Your task to perform on an android device: set the timer Image 0: 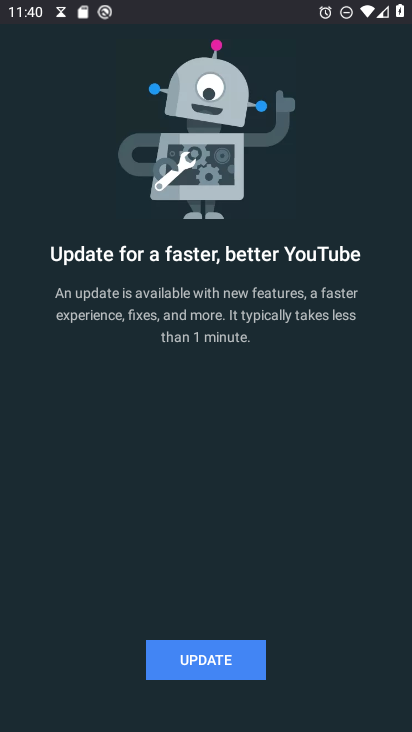
Step 0: press home button
Your task to perform on an android device: set the timer Image 1: 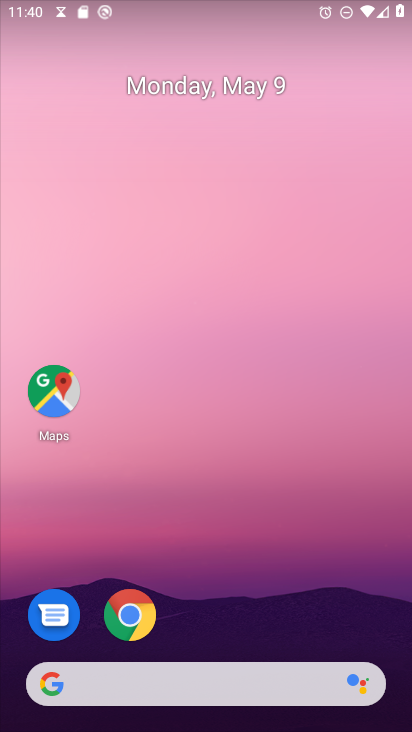
Step 1: drag from (216, 719) to (191, 187)
Your task to perform on an android device: set the timer Image 2: 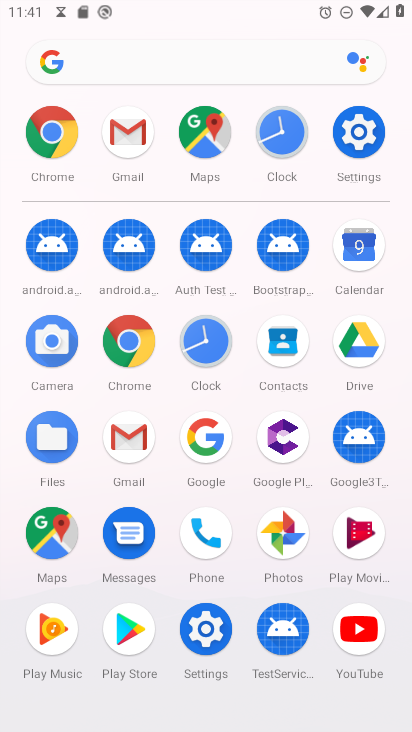
Step 2: click (202, 336)
Your task to perform on an android device: set the timer Image 3: 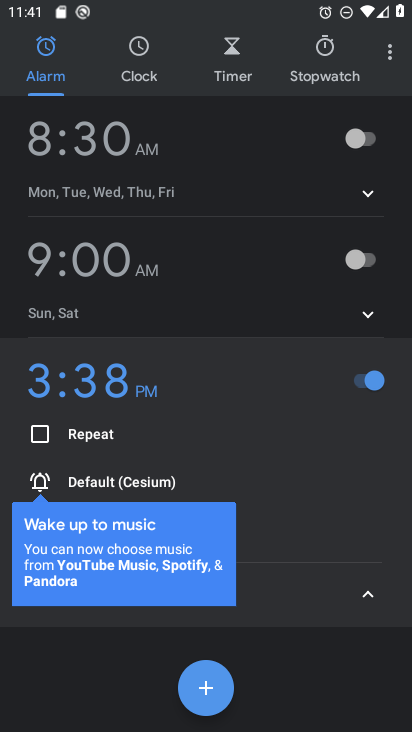
Step 3: click (234, 59)
Your task to perform on an android device: set the timer Image 4: 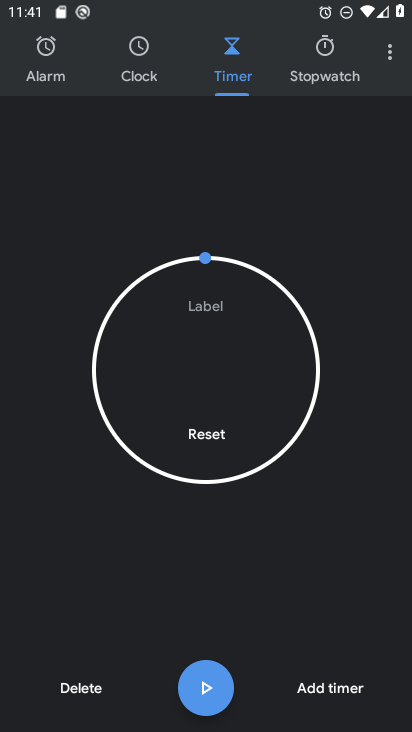
Step 4: click (331, 679)
Your task to perform on an android device: set the timer Image 5: 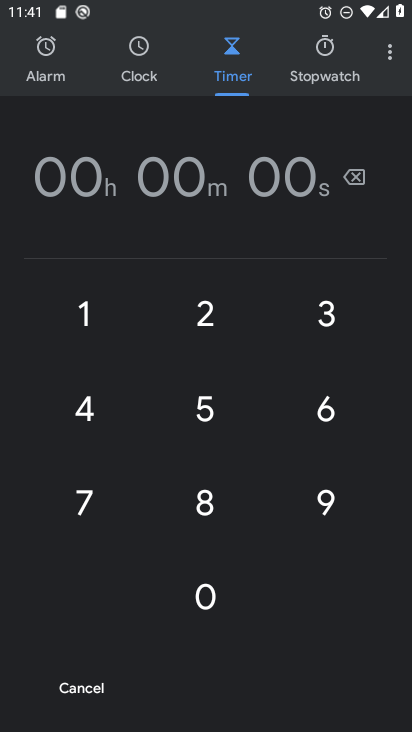
Step 5: click (203, 407)
Your task to perform on an android device: set the timer Image 6: 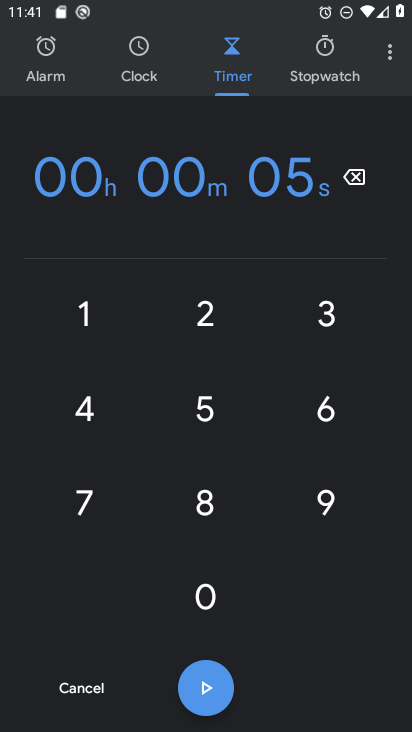
Step 6: click (205, 509)
Your task to perform on an android device: set the timer Image 7: 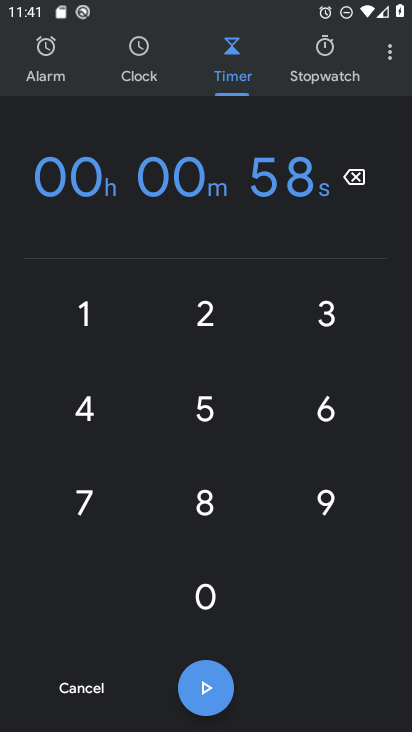
Step 7: click (87, 409)
Your task to perform on an android device: set the timer Image 8: 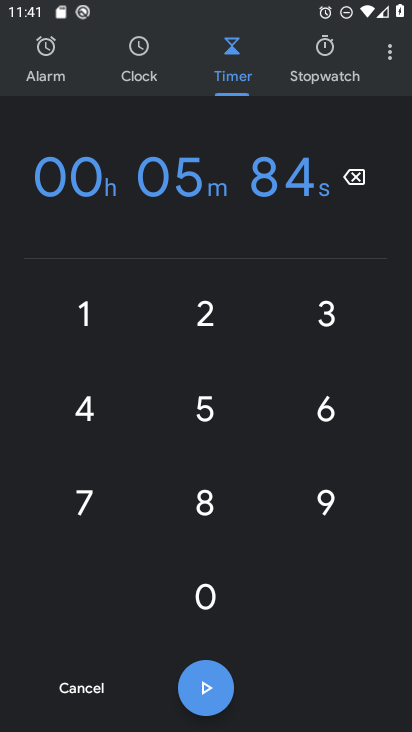
Step 8: click (79, 307)
Your task to perform on an android device: set the timer Image 9: 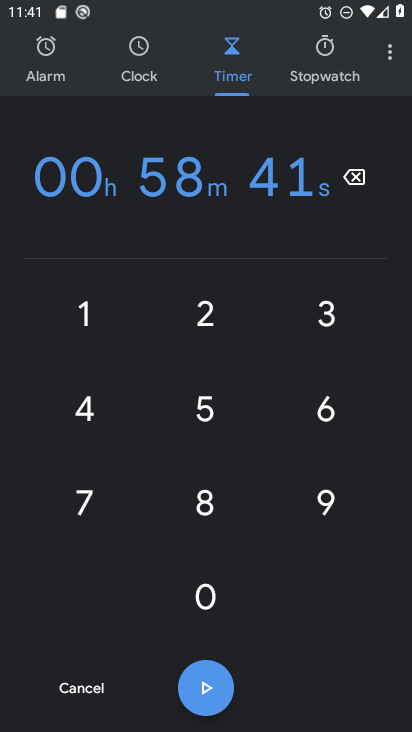
Step 9: click (206, 695)
Your task to perform on an android device: set the timer Image 10: 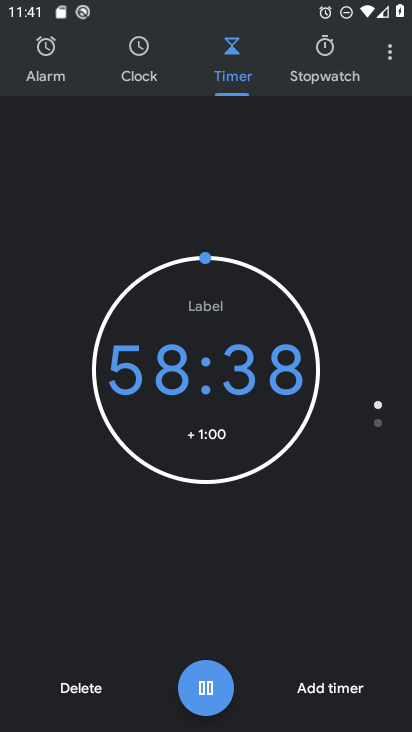
Step 10: task complete